Your task to perform on an android device: turn on data saver in the chrome app Image 0: 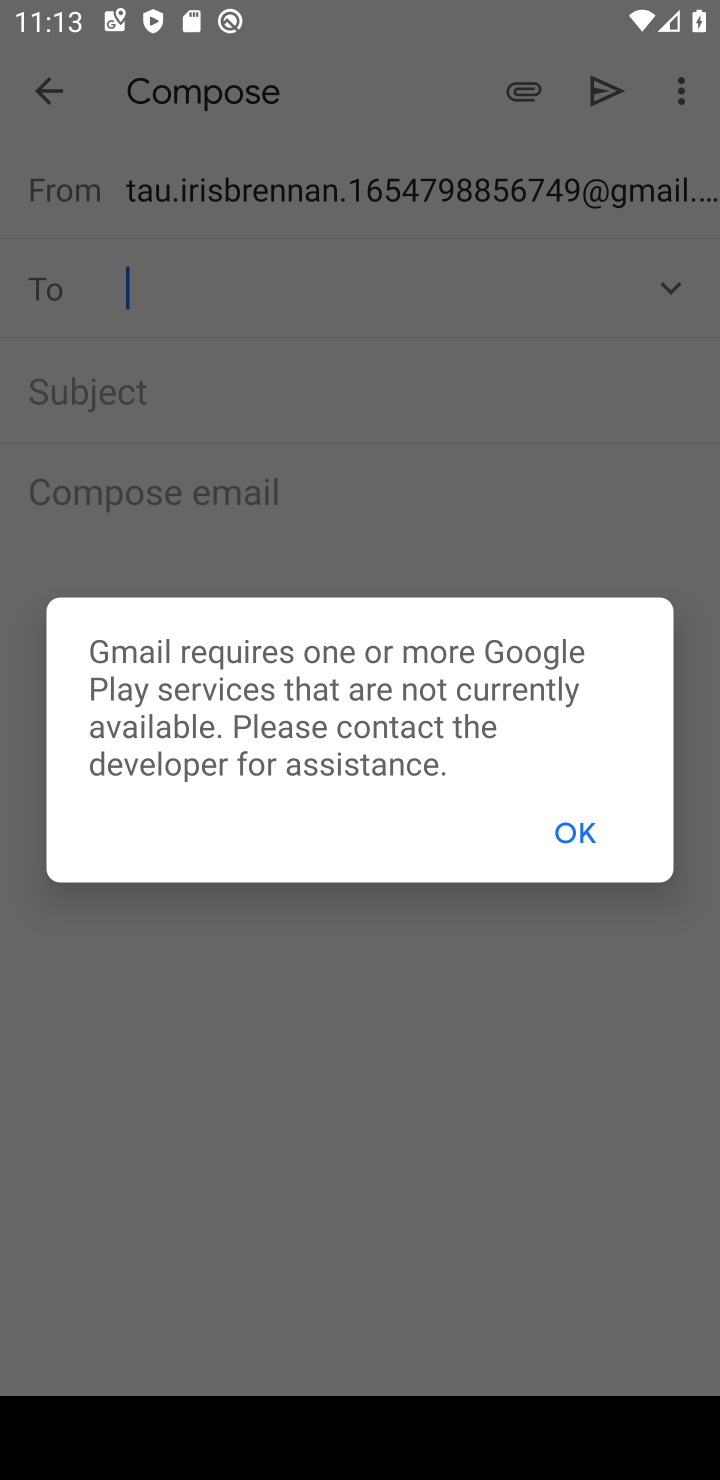
Step 0: click (577, 831)
Your task to perform on an android device: turn on data saver in the chrome app Image 1: 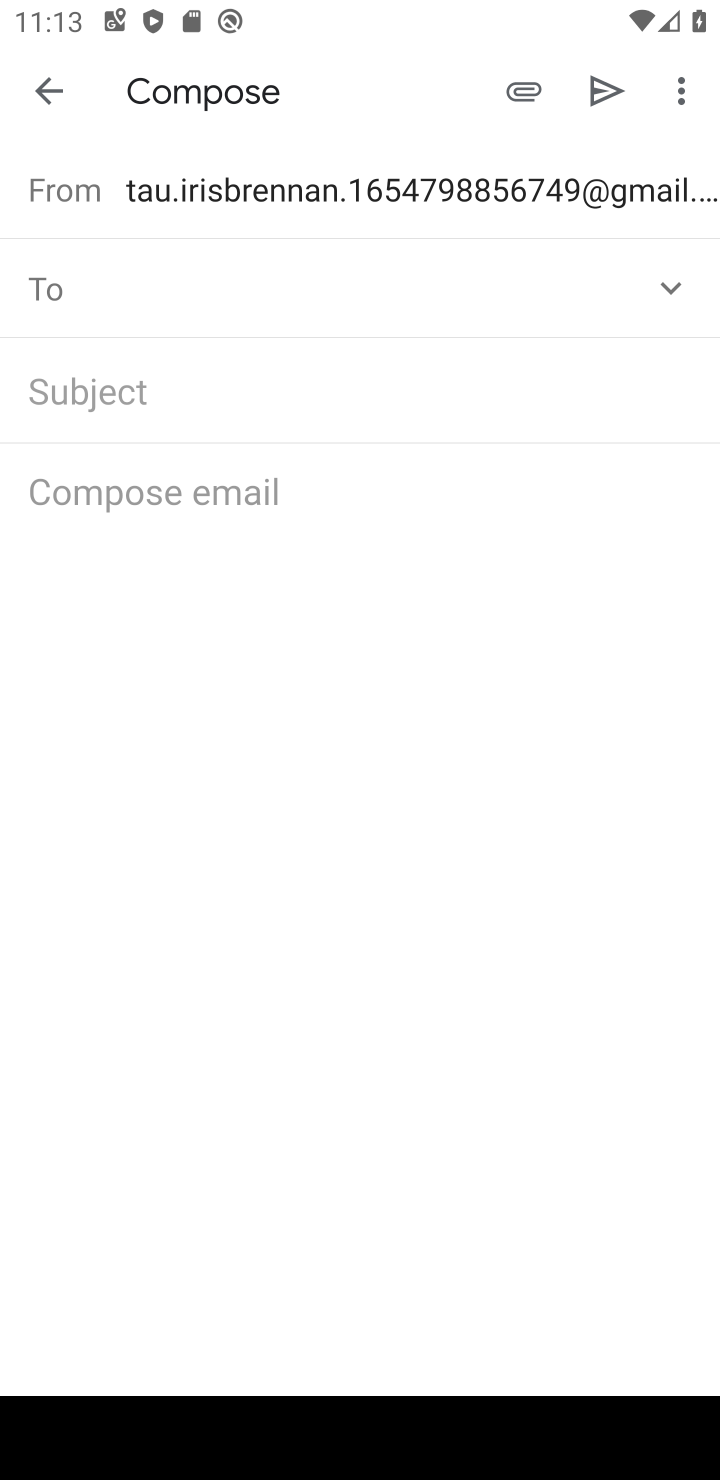
Step 1: press home button
Your task to perform on an android device: turn on data saver in the chrome app Image 2: 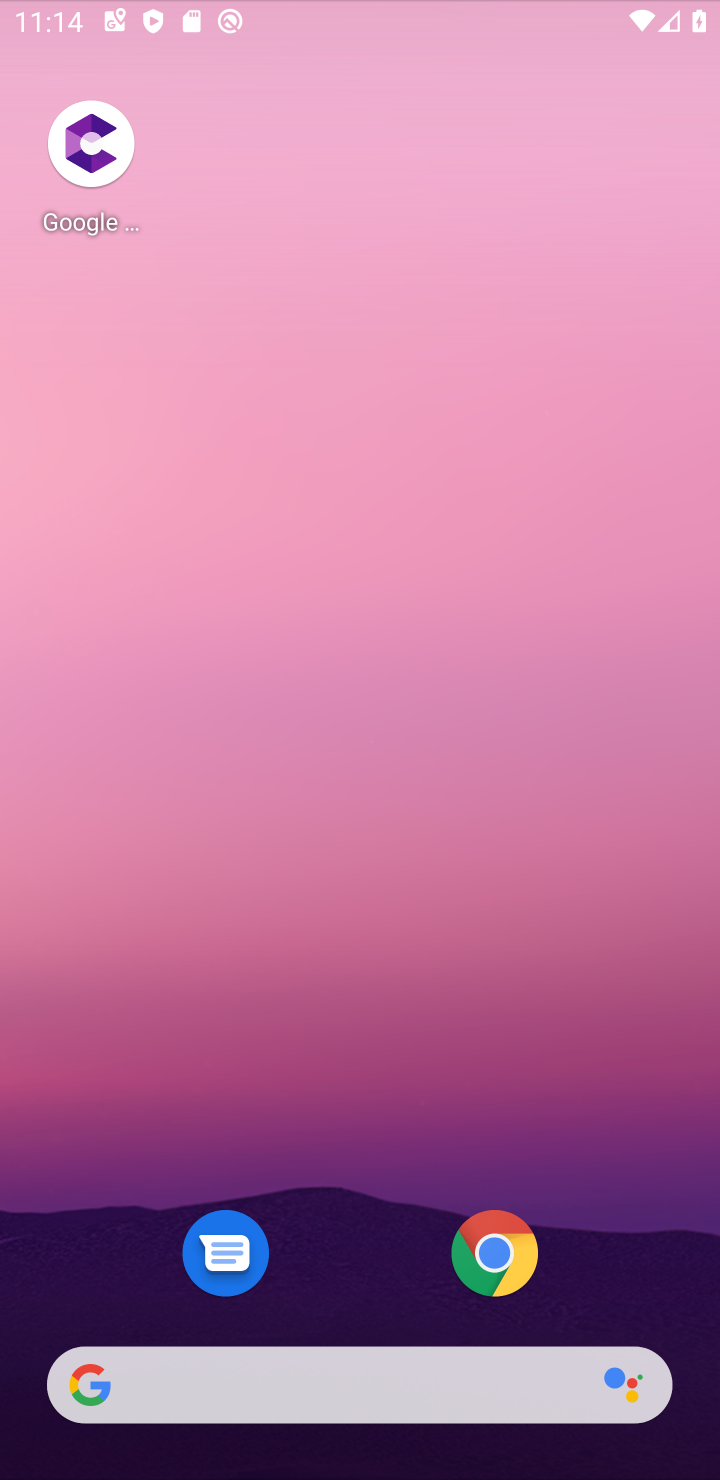
Step 2: drag from (287, 1374) to (498, 423)
Your task to perform on an android device: turn on data saver in the chrome app Image 3: 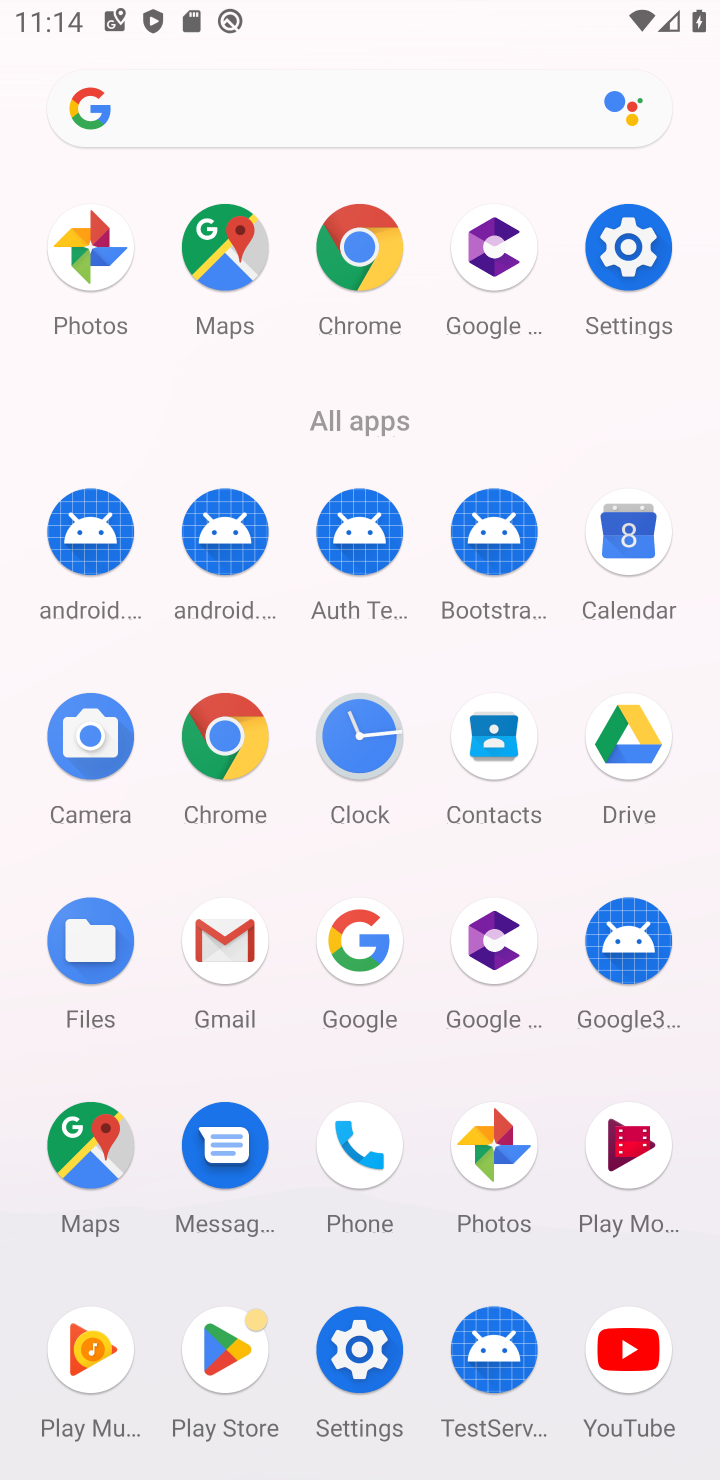
Step 3: click (324, 247)
Your task to perform on an android device: turn on data saver in the chrome app Image 4: 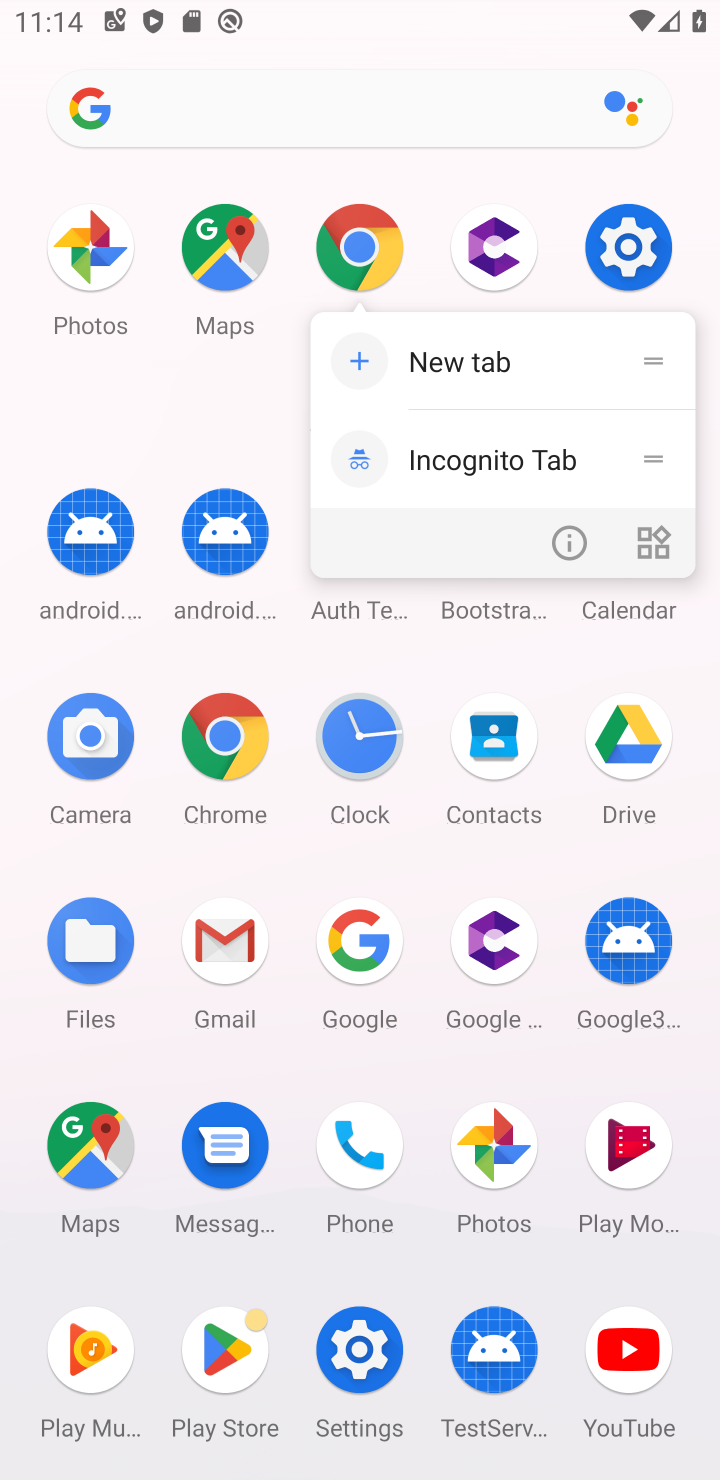
Step 4: click (371, 244)
Your task to perform on an android device: turn on data saver in the chrome app Image 5: 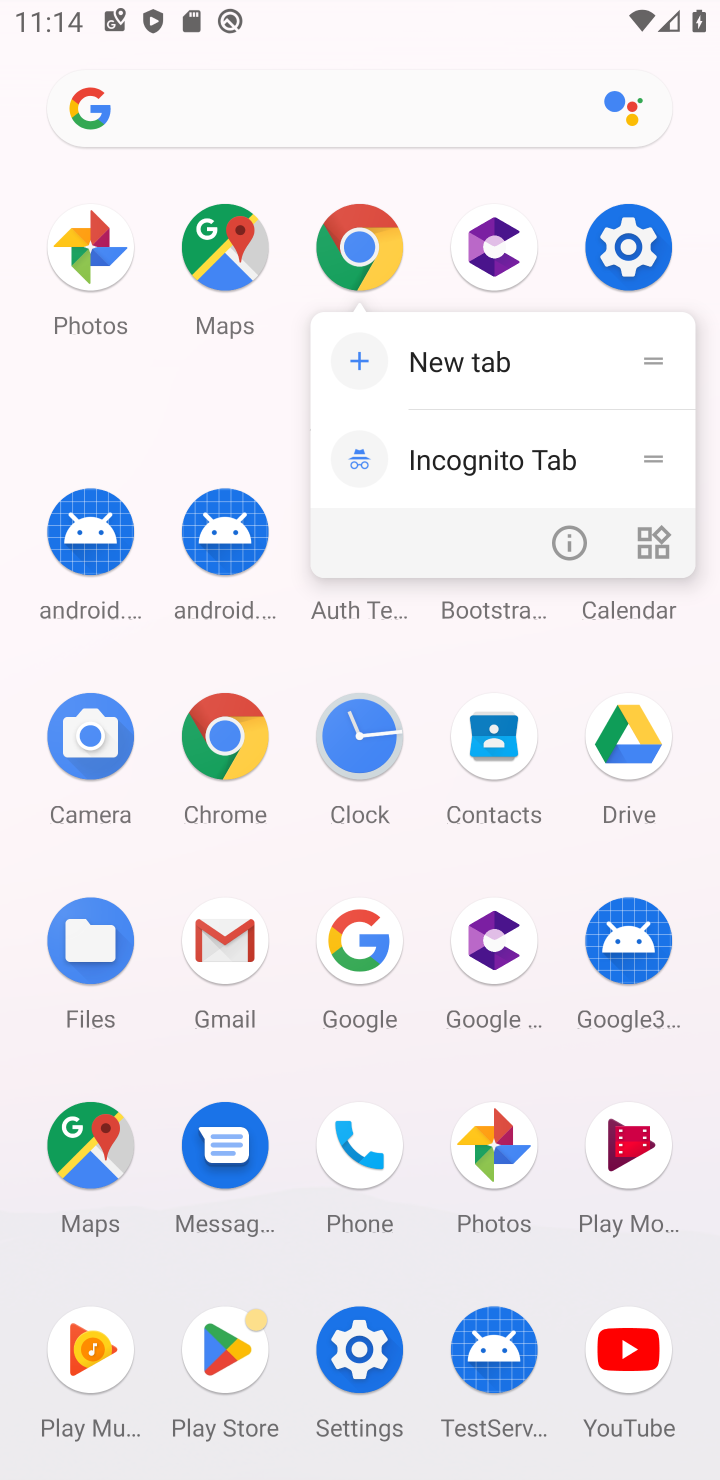
Step 5: click (371, 248)
Your task to perform on an android device: turn on data saver in the chrome app Image 6: 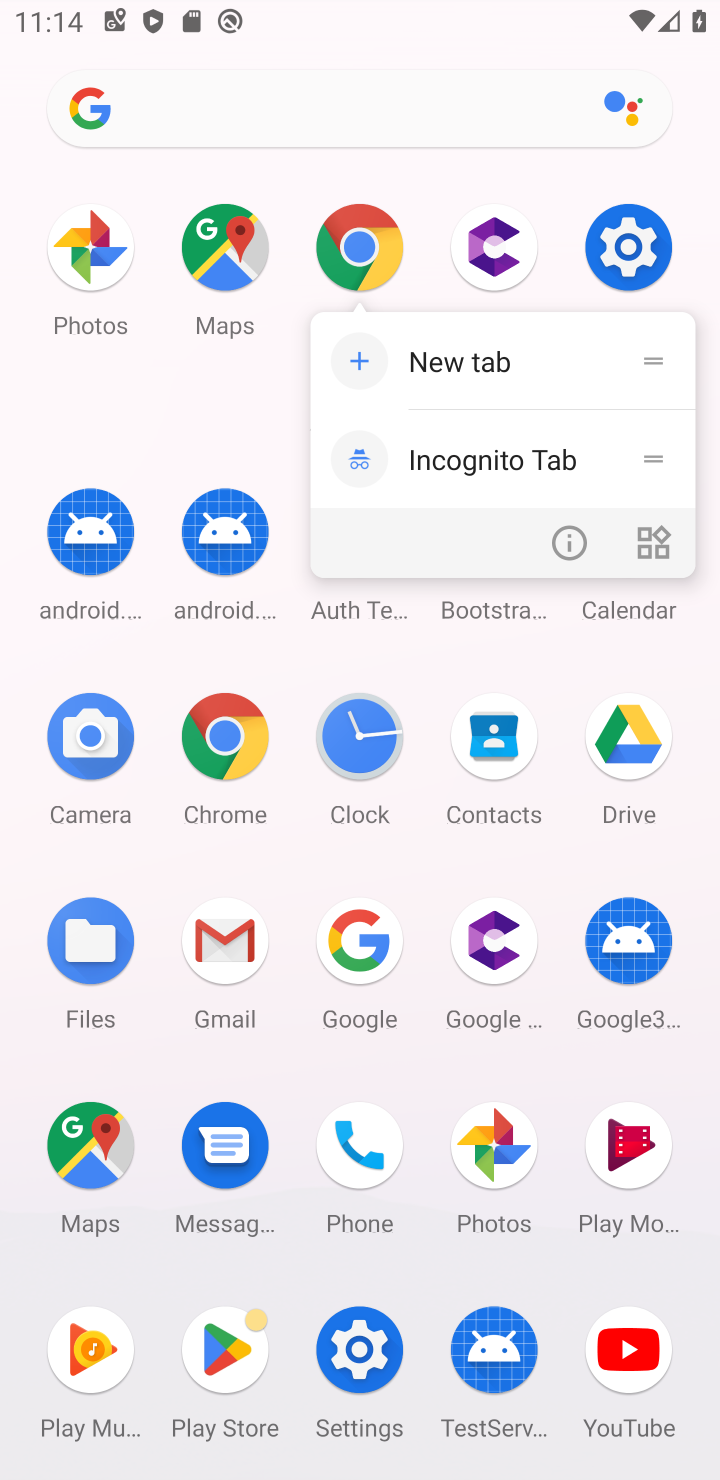
Step 6: click (371, 244)
Your task to perform on an android device: turn on data saver in the chrome app Image 7: 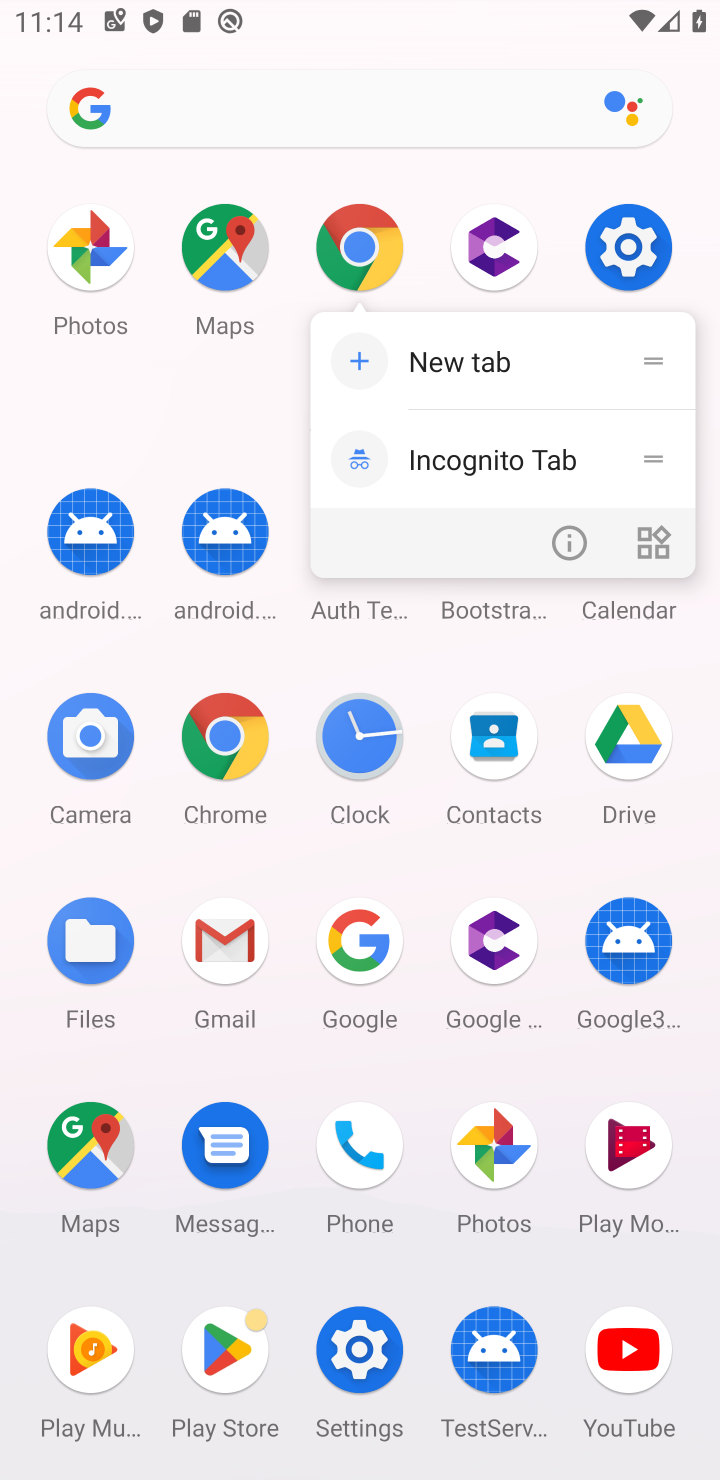
Step 7: click (244, 707)
Your task to perform on an android device: turn on data saver in the chrome app Image 8: 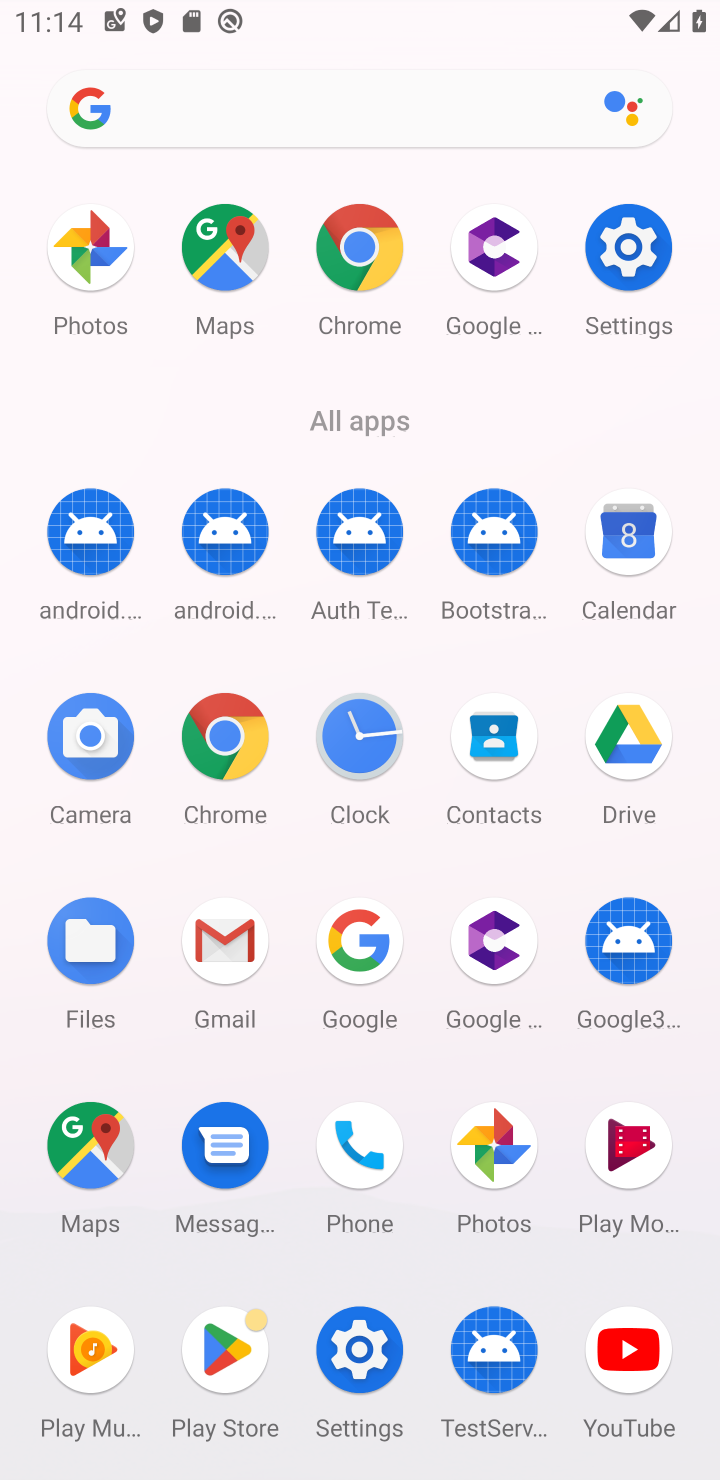
Step 8: click (242, 752)
Your task to perform on an android device: turn on data saver in the chrome app Image 9: 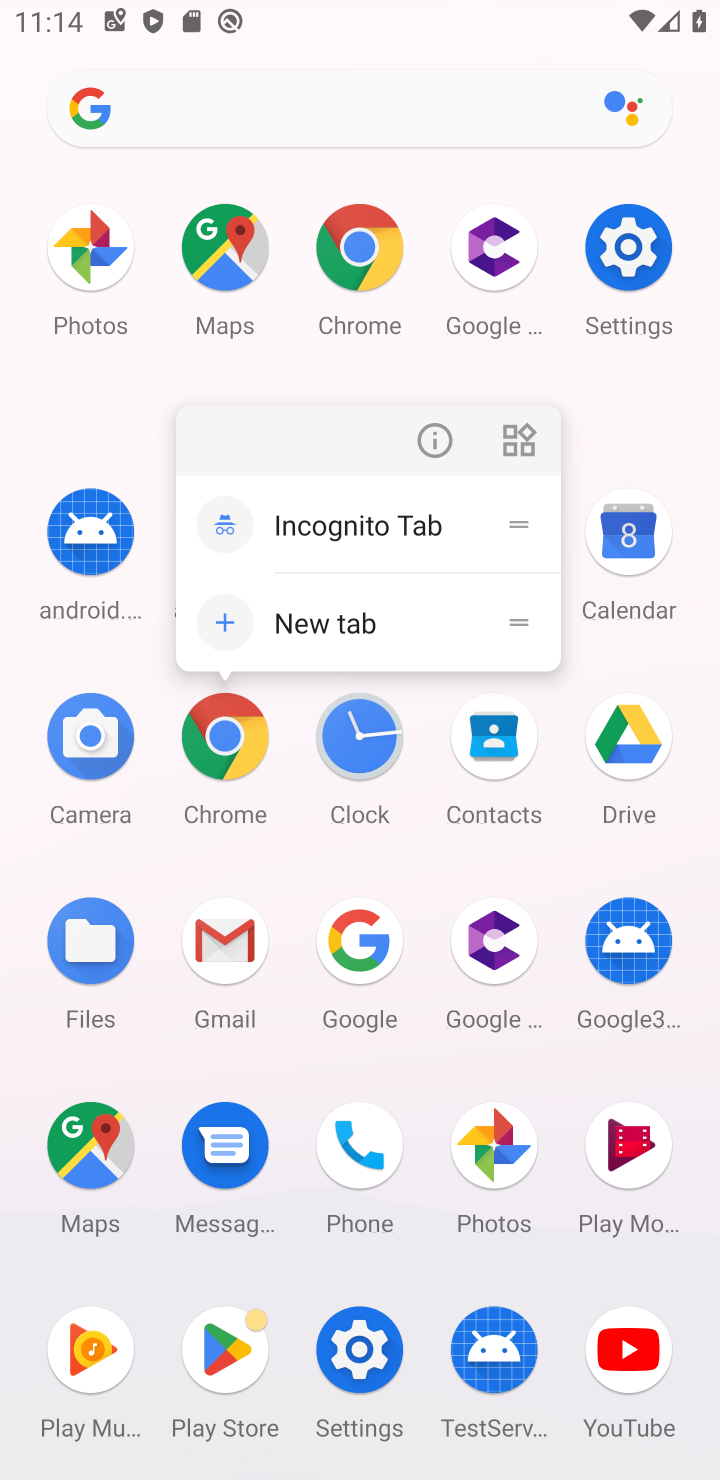
Step 9: click (242, 752)
Your task to perform on an android device: turn on data saver in the chrome app Image 10: 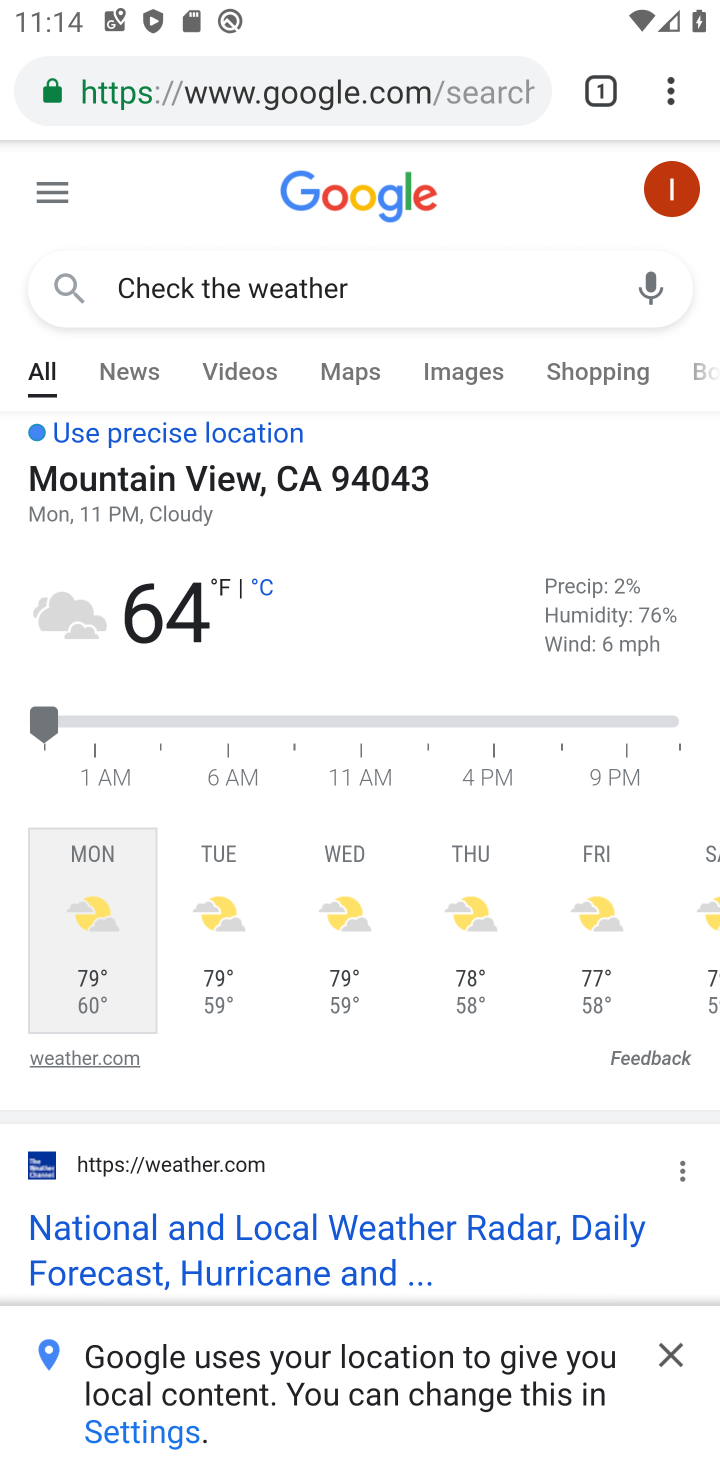
Step 10: click (676, 85)
Your task to perform on an android device: turn on data saver in the chrome app Image 11: 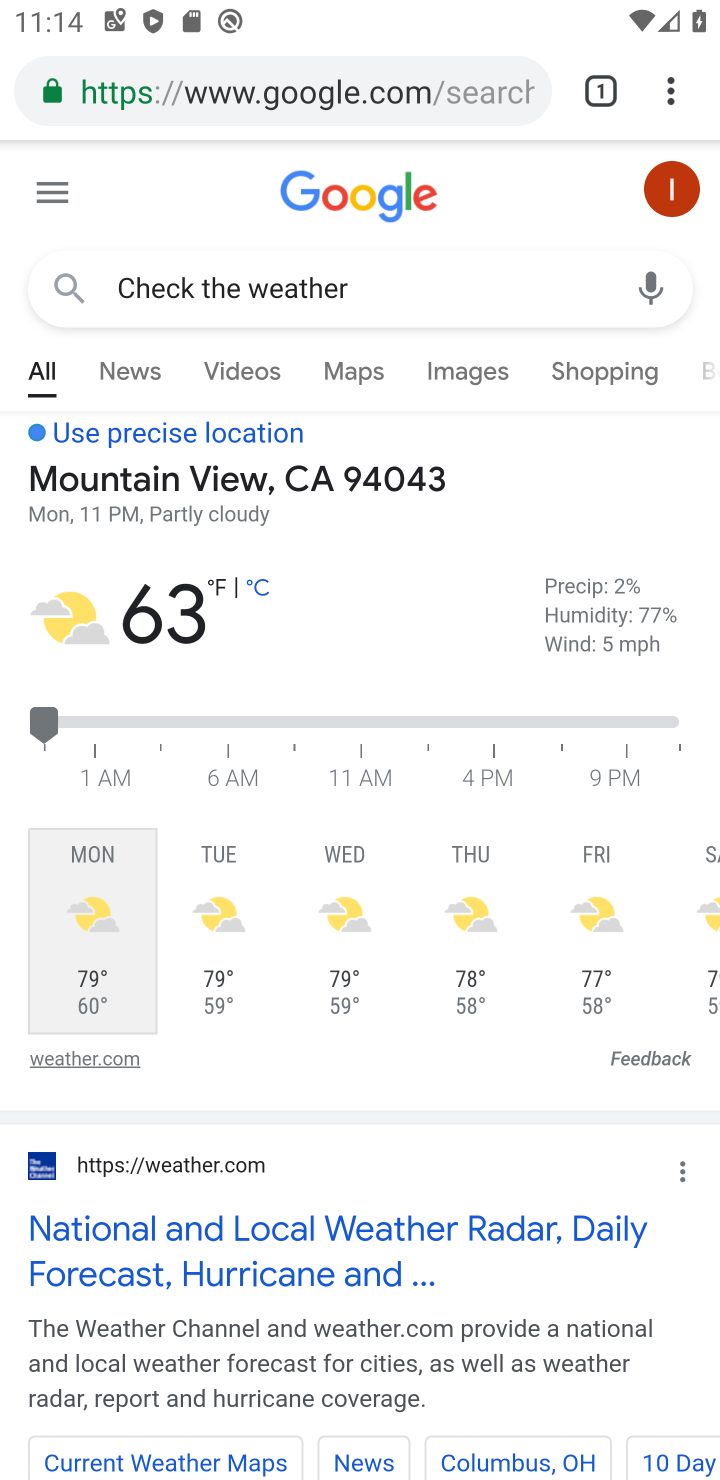
Step 11: click (663, 102)
Your task to perform on an android device: turn on data saver in the chrome app Image 12: 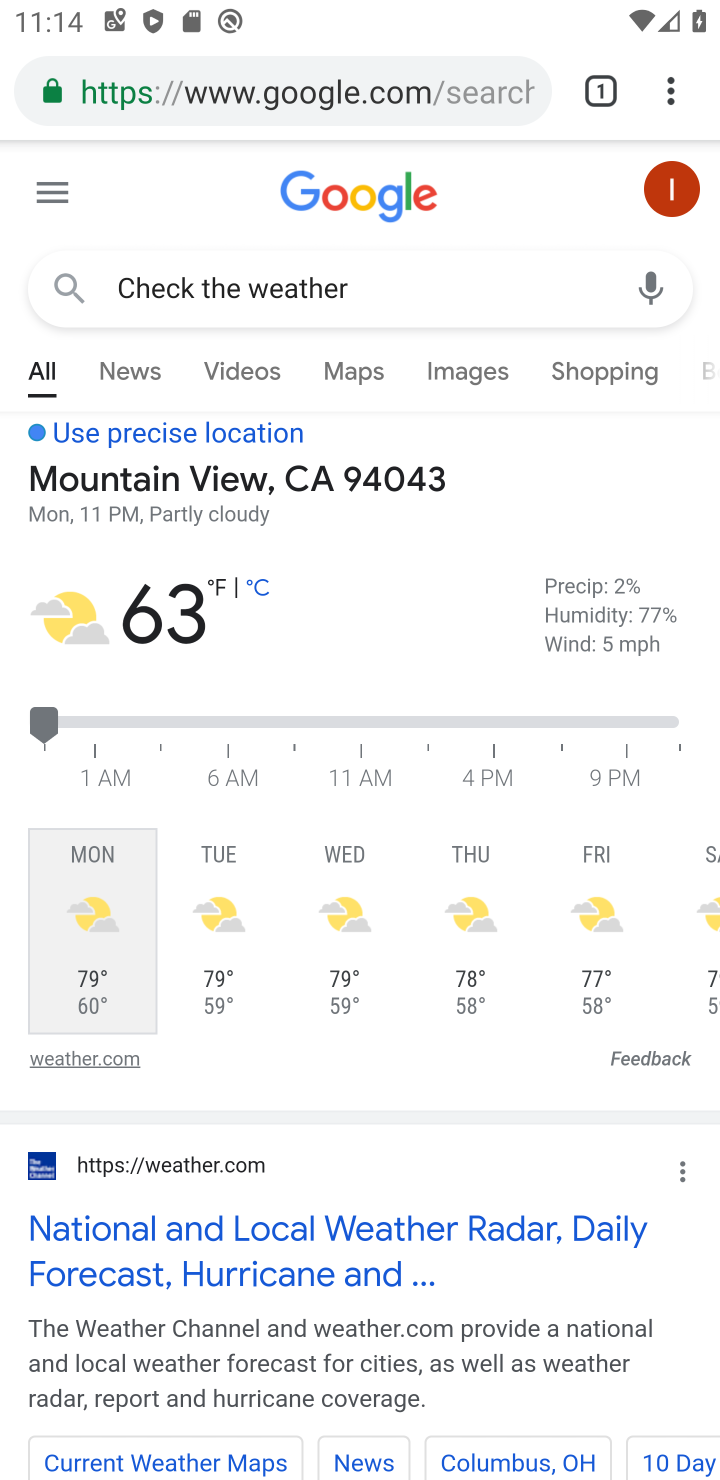
Step 12: click (667, 121)
Your task to perform on an android device: turn on data saver in the chrome app Image 13: 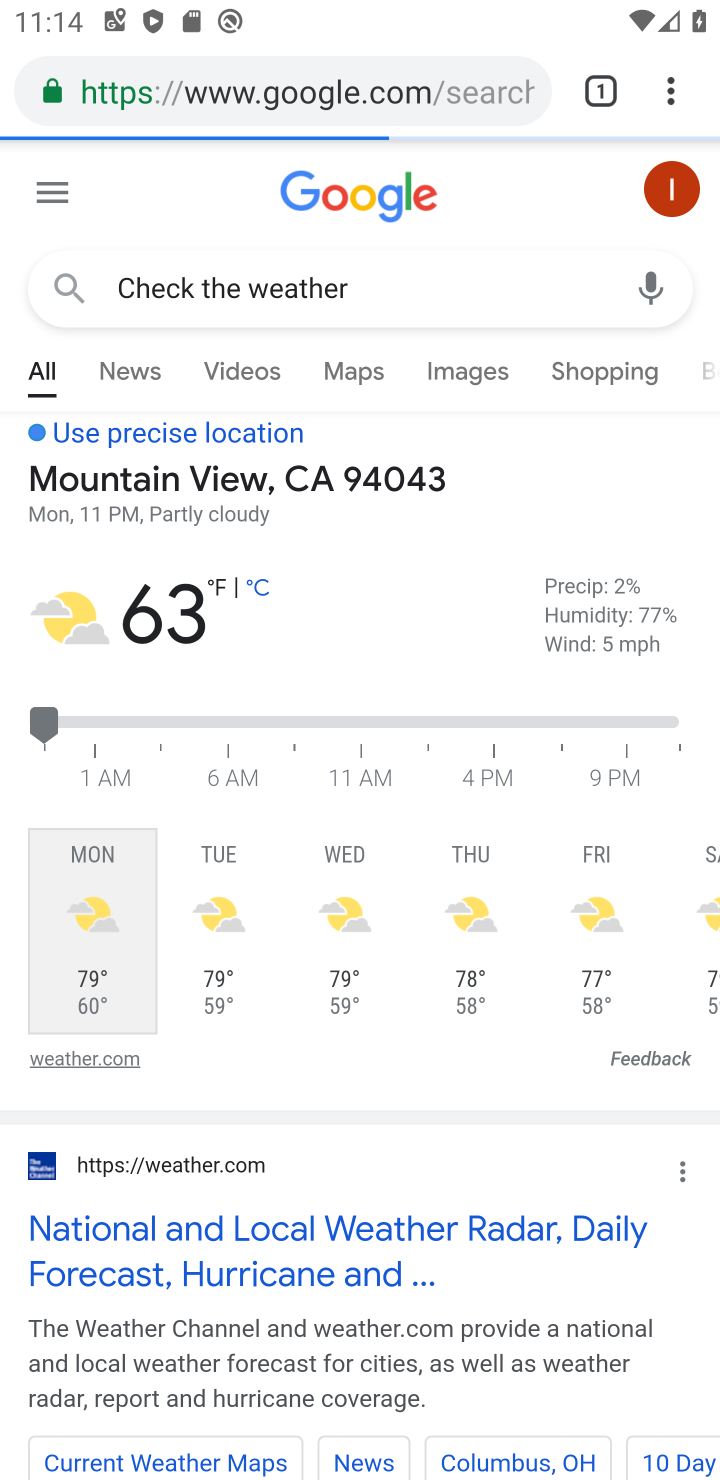
Step 13: click (661, 80)
Your task to perform on an android device: turn on data saver in the chrome app Image 14: 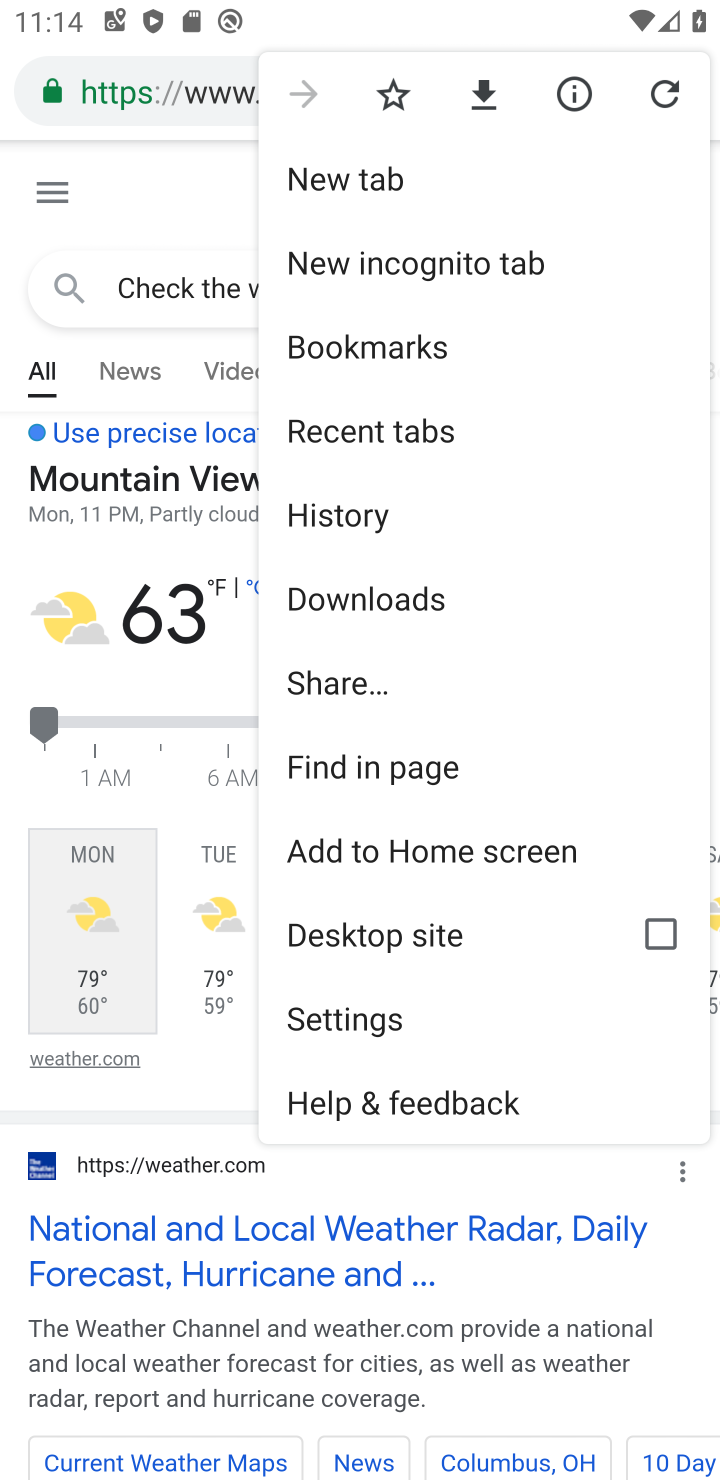
Step 14: click (353, 1047)
Your task to perform on an android device: turn on data saver in the chrome app Image 15: 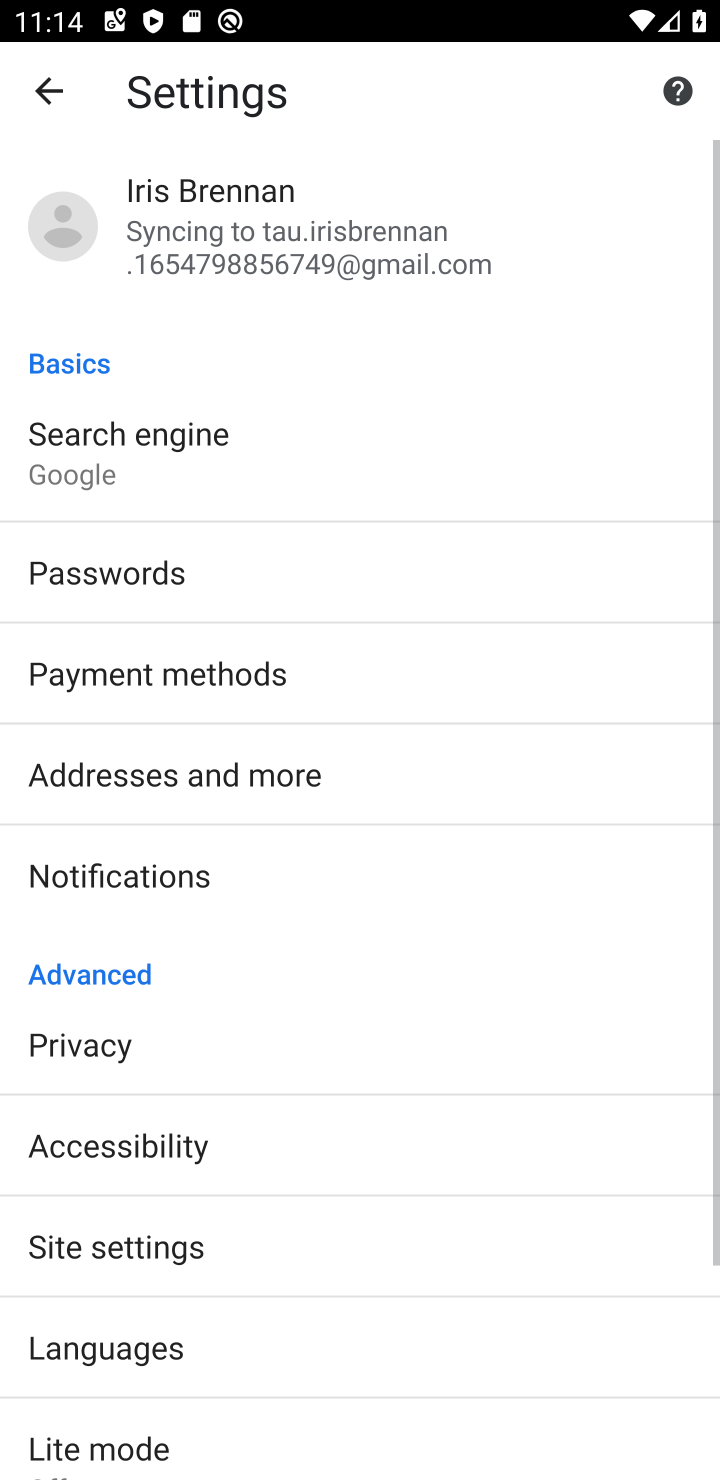
Step 15: drag from (228, 1176) to (402, 256)
Your task to perform on an android device: turn on data saver in the chrome app Image 16: 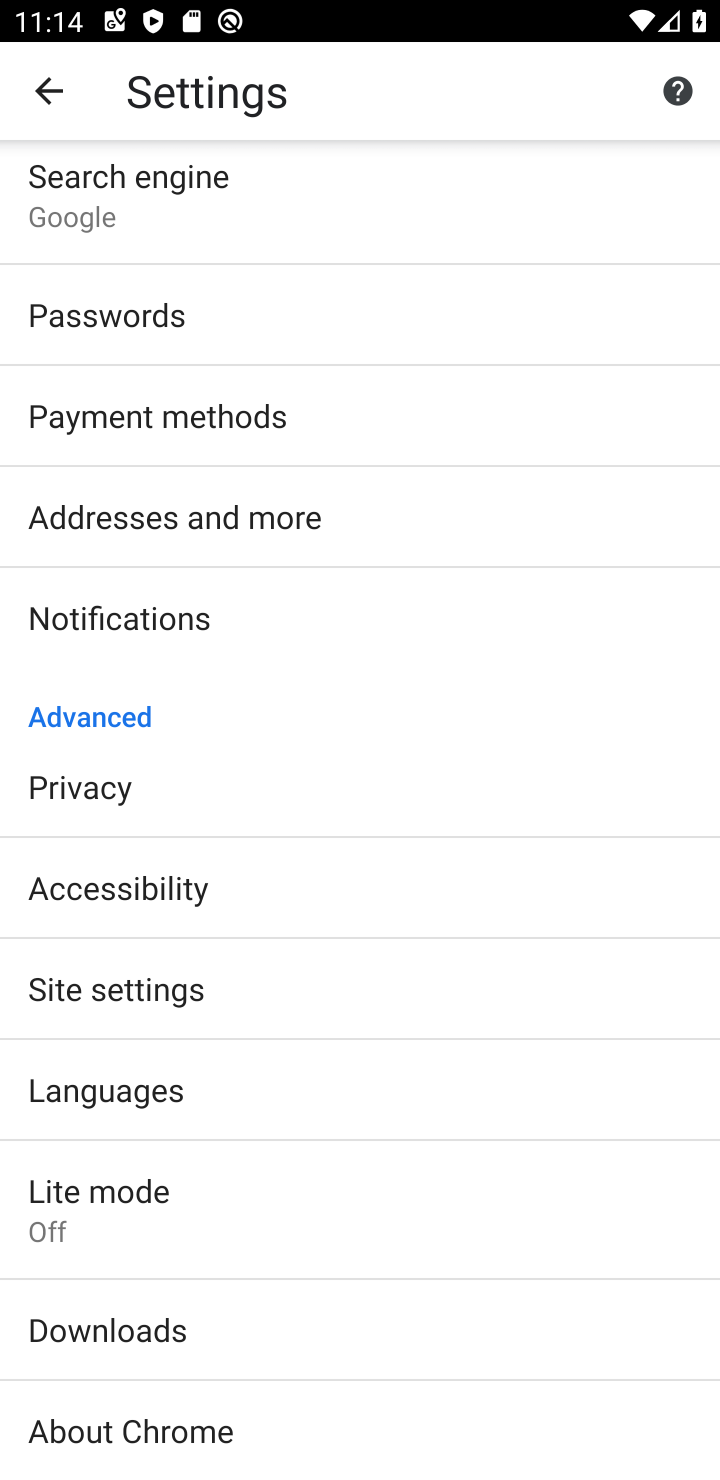
Step 16: click (175, 1209)
Your task to perform on an android device: turn on data saver in the chrome app Image 17: 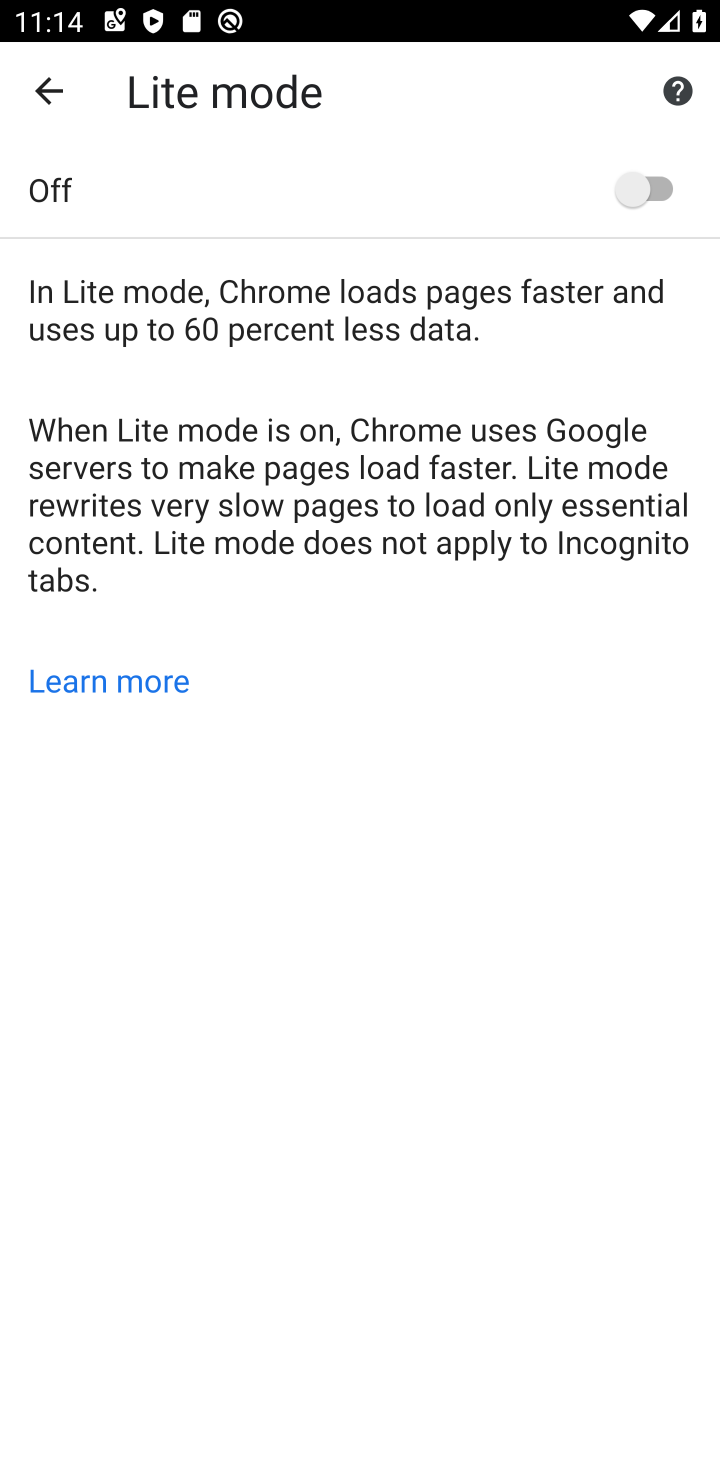
Step 17: click (644, 190)
Your task to perform on an android device: turn on data saver in the chrome app Image 18: 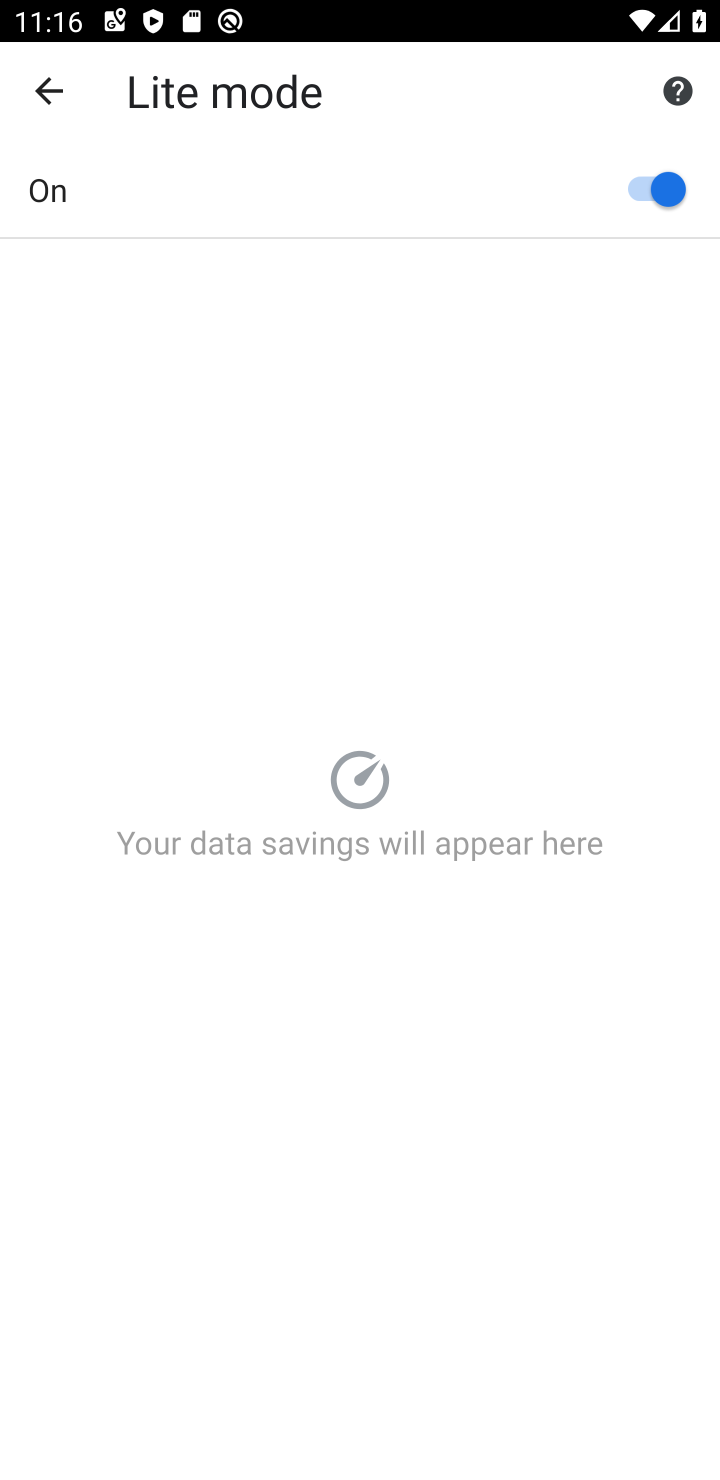
Step 18: task complete